Your task to perform on an android device: Turn off the flashlight Image 0: 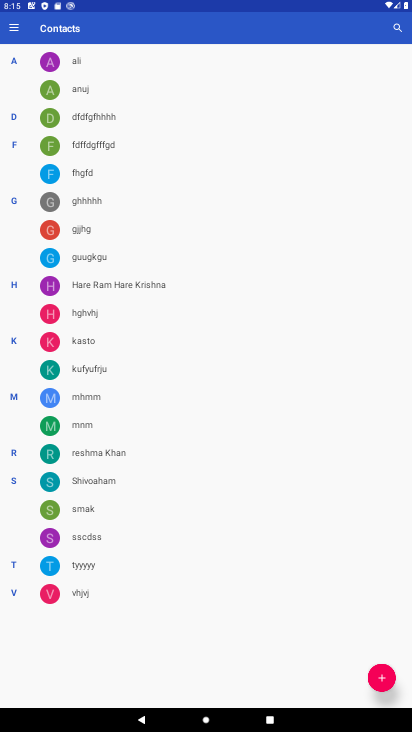
Step 0: press home button
Your task to perform on an android device: Turn off the flashlight Image 1: 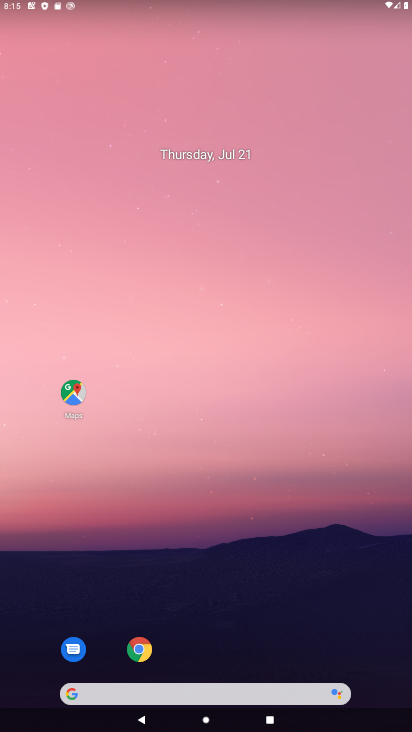
Step 1: drag from (252, 580) to (216, 0)
Your task to perform on an android device: Turn off the flashlight Image 2: 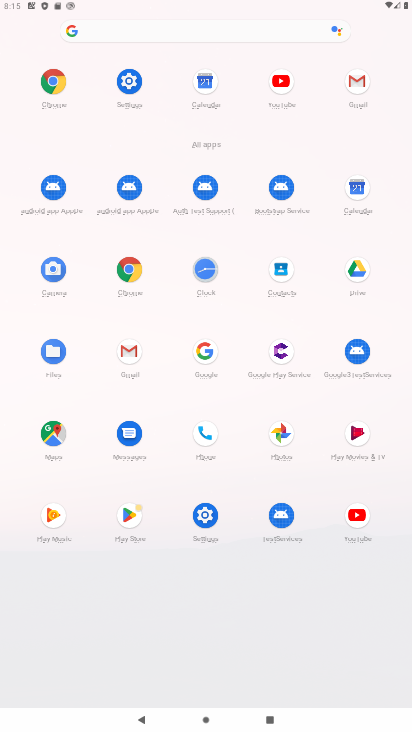
Step 2: click (129, 80)
Your task to perform on an android device: Turn off the flashlight Image 3: 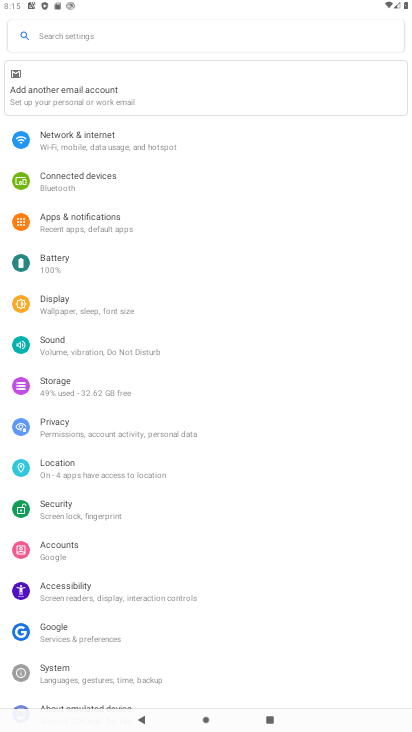
Step 3: drag from (214, 78) to (199, 286)
Your task to perform on an android device: Turn off the flashlight Image 4: 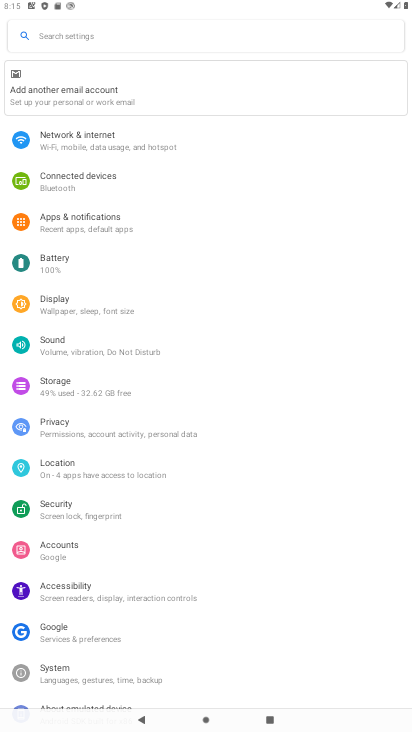
Step 4: click (186, 33)
Your task to perform on an android device: Turn off the flashlight Image 5: 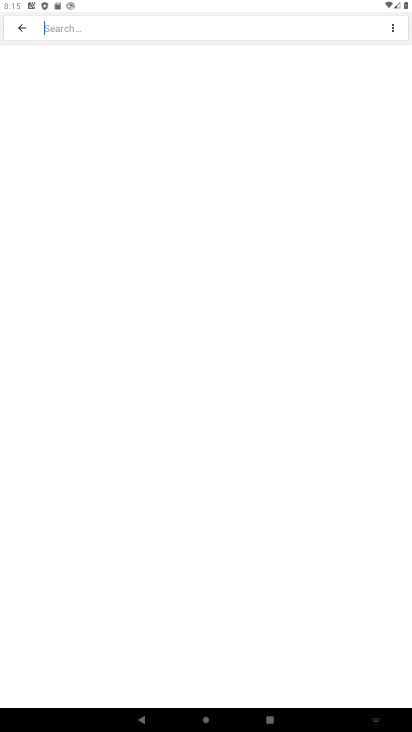
Step 5: type "flashlight"
Your task to perform on an android device: Turn off the flashlight Image 6: 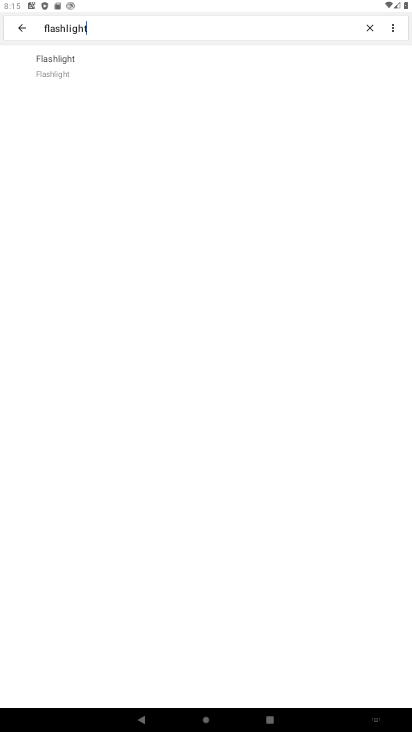
Step 6: click (78, 59)
Your task to perform on an android device: Turn off the flashlight Image 7: 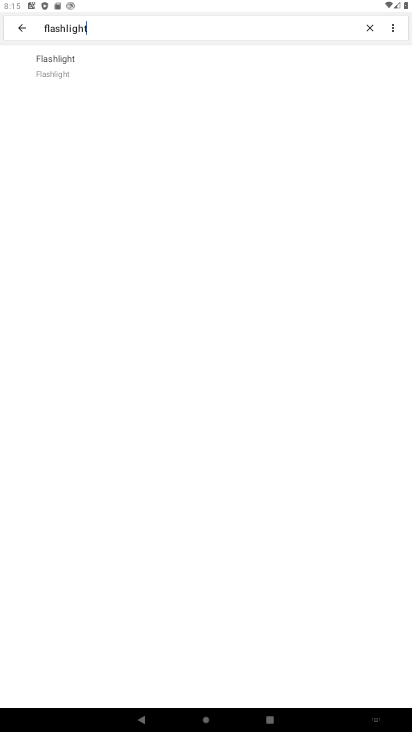
Step 7: task complete